Your task to perform on an android device: Open my contact list Image 0: 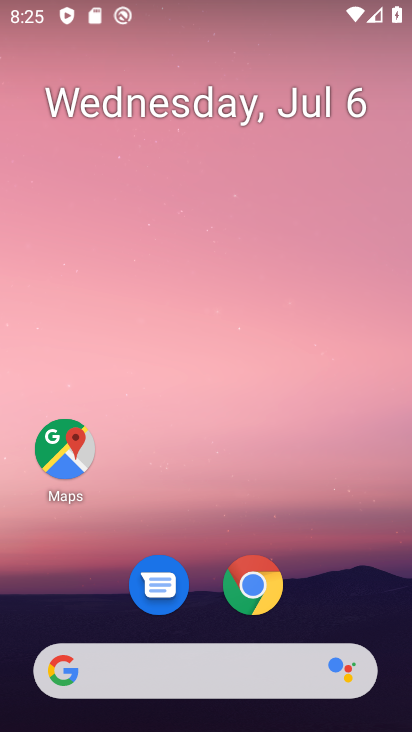
Step 0: drag from (217, 516) to (204, 0)
Your task to perform on an android device: Open my contact list Image 1: 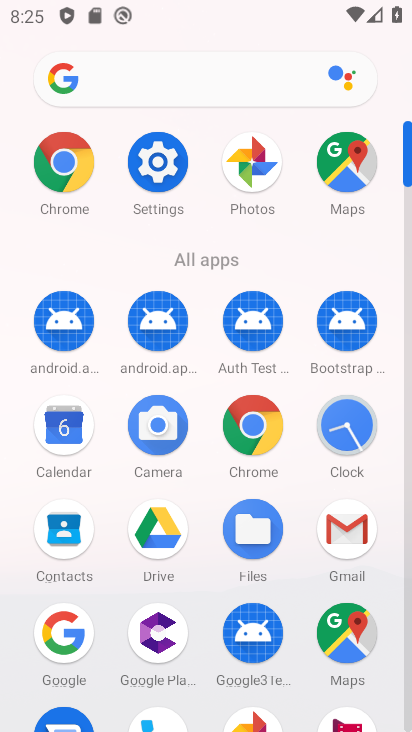
Step 1: click (63, 537)
Your task to perform on an android device: Open my contact list Image 2: 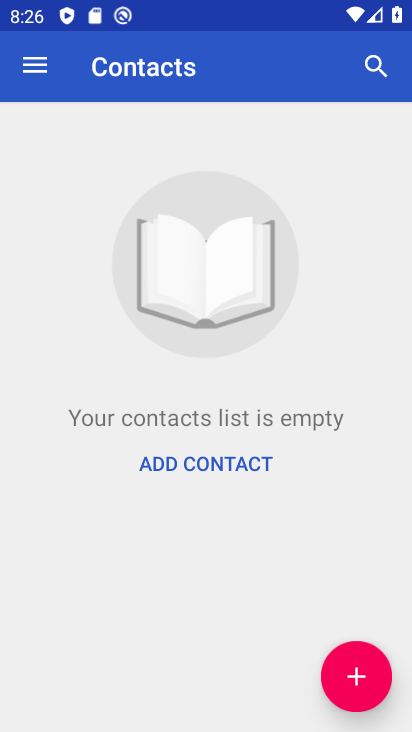
Step 2: task complete